Your task to perform on an android device: refresh tabs in the chrome app Image 0: 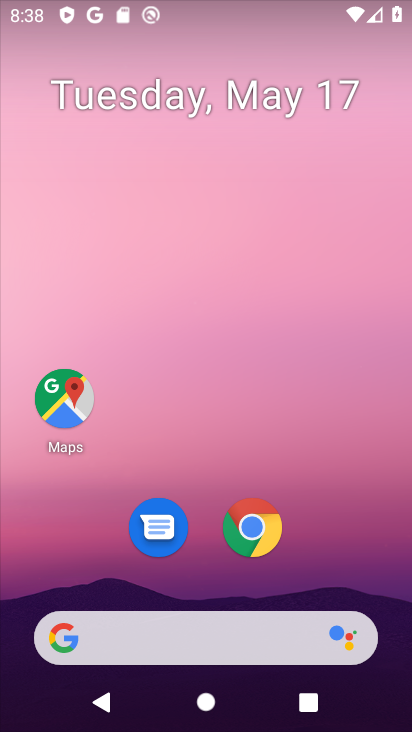
Step 0: click (242, 524)
Your task to perform on an android device: refresh tabs in the chrome app Image 1: 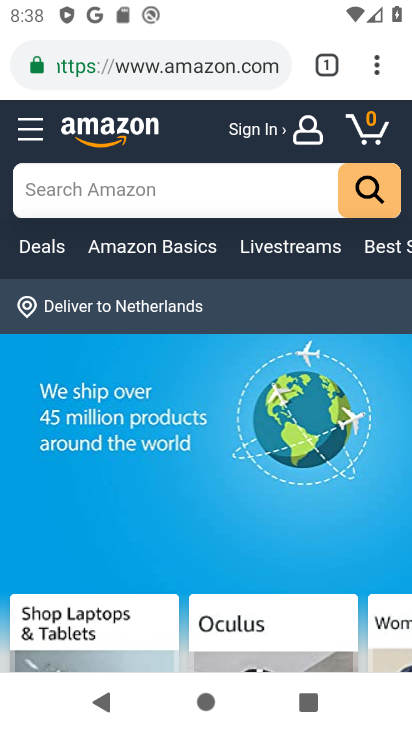
Step 1: click (379, 64)
Your task to perform on an android device: refresh tabs in the chrome app Image 2: 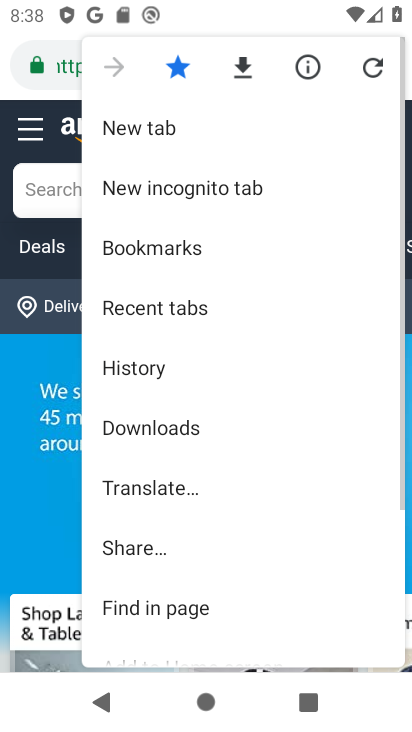
Step 2: click (377, 64)
Your task to perform on an android device: refresh tabs in the chrome app Image 3: 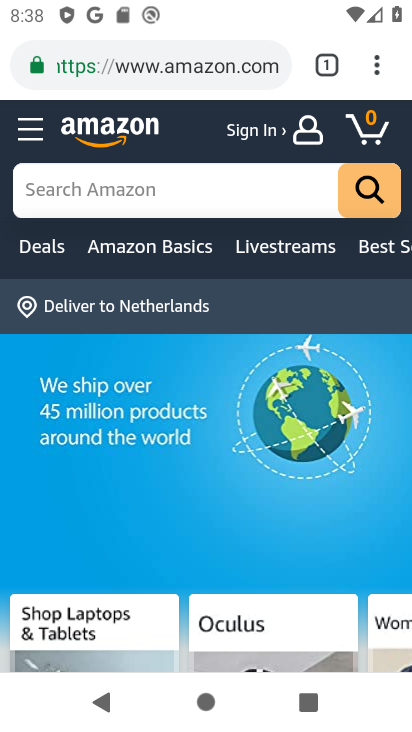
Step 3: task complete